Your task to perform on an android device: Open network settings Image 0: 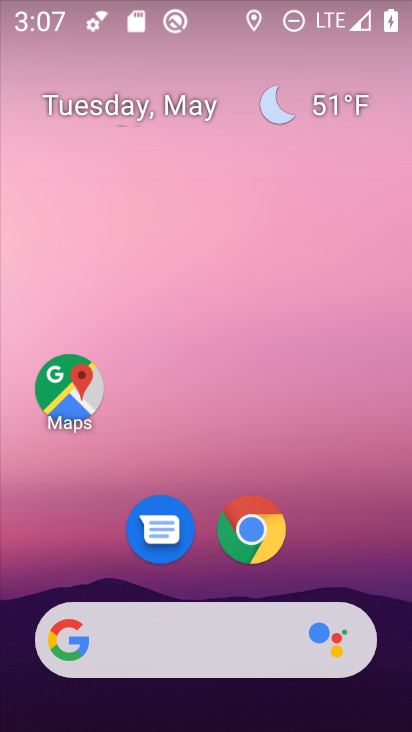
Step 0: drag from (201, 579) to (226, 62)
Your task to perform on an android device: Open network settings Image 1: 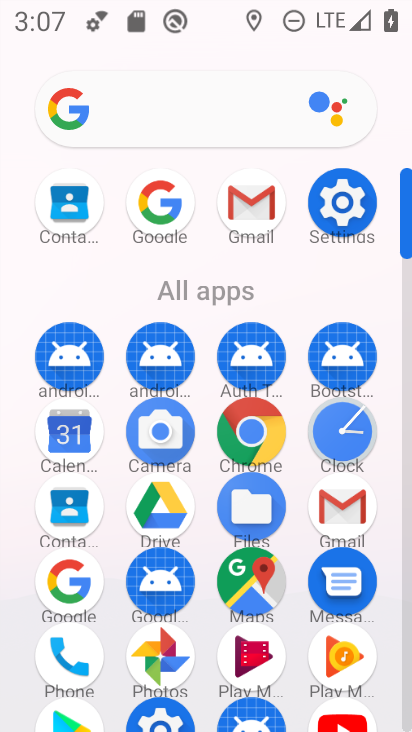
Step 1: click (345, 197)
Your task to perform on an android device: Open network settings Image 2: 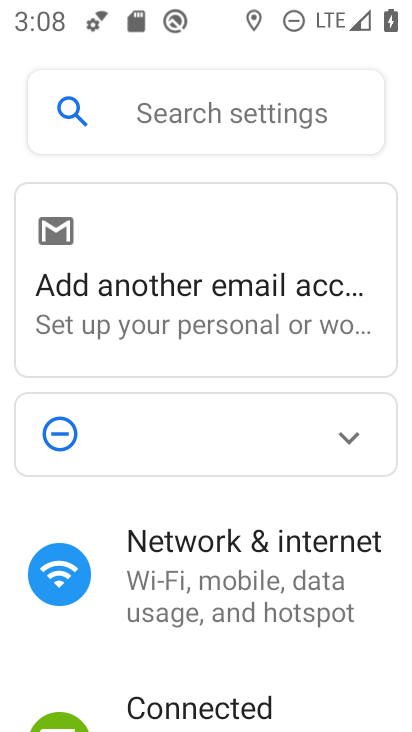
Step 2: click (198, 555)
Your task to perform on an android device: Open network settings Image 3: 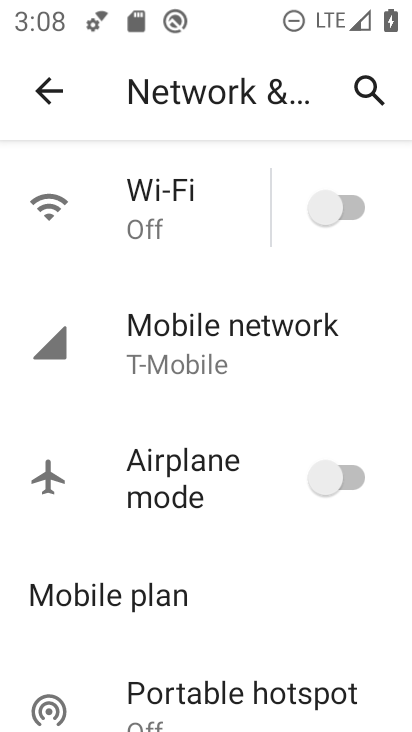
Step 3: task complete